Your task to perform on an android device: Go to settings Image 0: 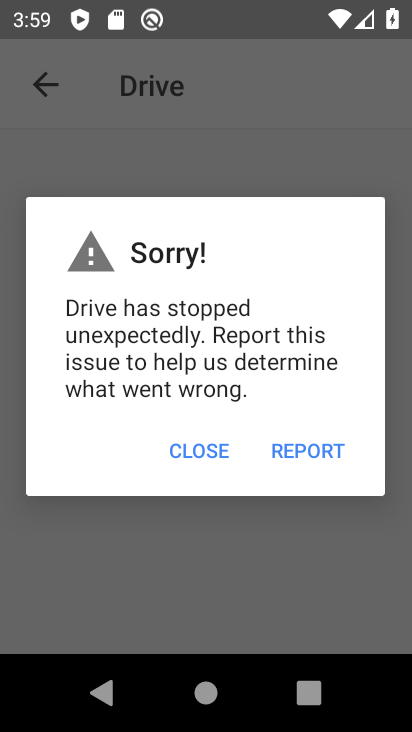
Step 0: press home button
Your task to perform on an android device: Go to settings Image 1: 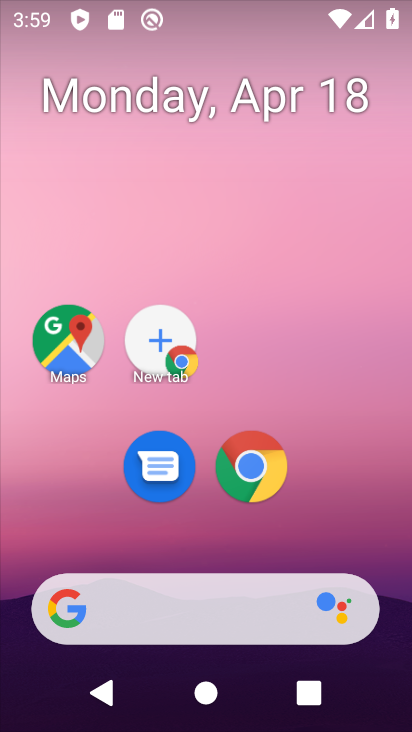
Step 1: drag from (326, 522) to (246, 1)
Your task to perform on an android device: Go to settings Image 2: 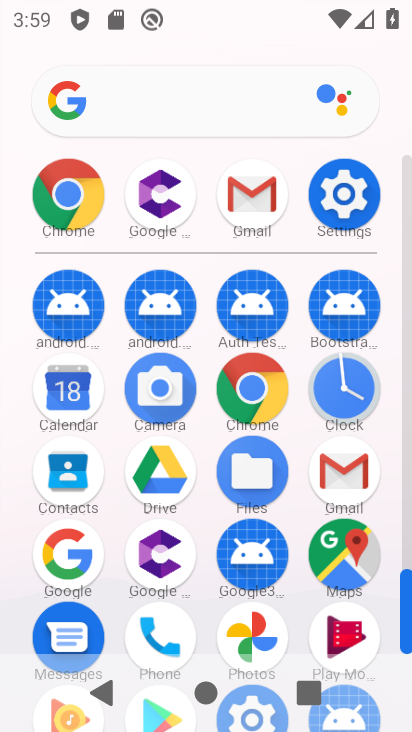
Step 2: click (345, 198)
Your task to perform on an android device: Go to settings Image 3: 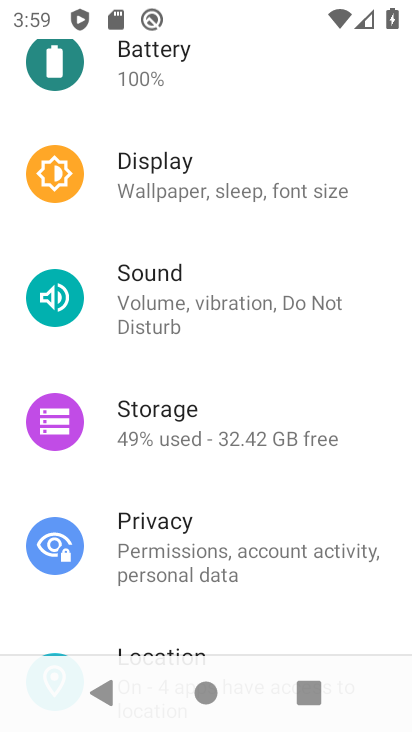
Step 3: task complete